Your task to perform on an android device: Open Google Chrome and click the shortcut for Amazon.com Image 0: 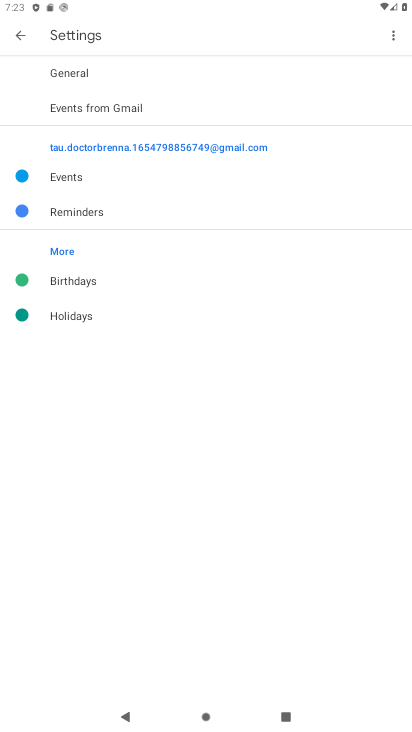
Step 0: press home button
Your task to perform on an android device: Open Google Chrome and click the shortcut for Amazon.com Image 1: 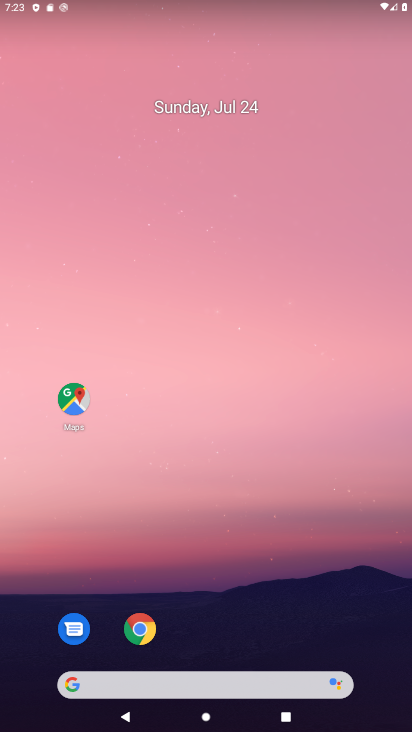
Step 1: drag from (365, 631) to (393, 102)
Your task to perform on an android device: Open Google Chrome and click the shortcut for Amazon.com Image 2: 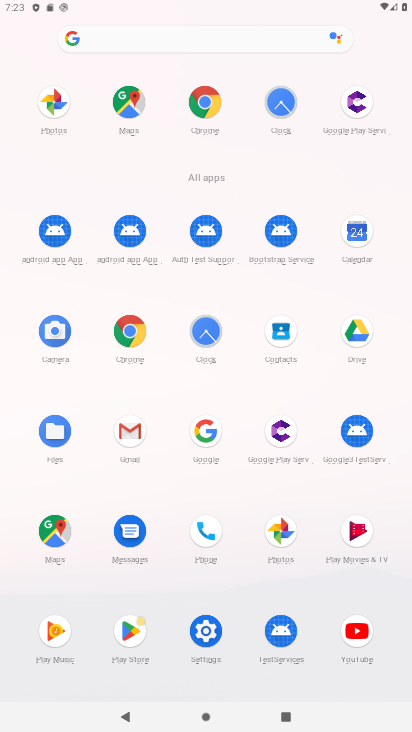
Step 2: click (199, 103)
Your task to perform on an android device: Open Google Chrome and click the shortcut for Amazon.com Image 3: 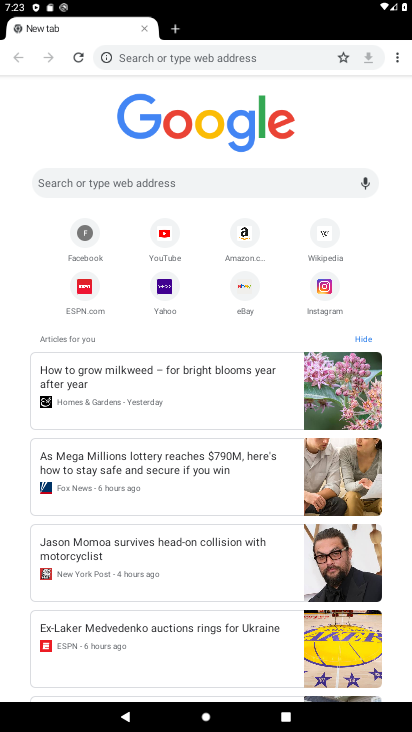
Step 3: click (245, 240)
Your task to perform on an android device: Open Google Chrome and click the shortcut for Amazon.com Image 4: 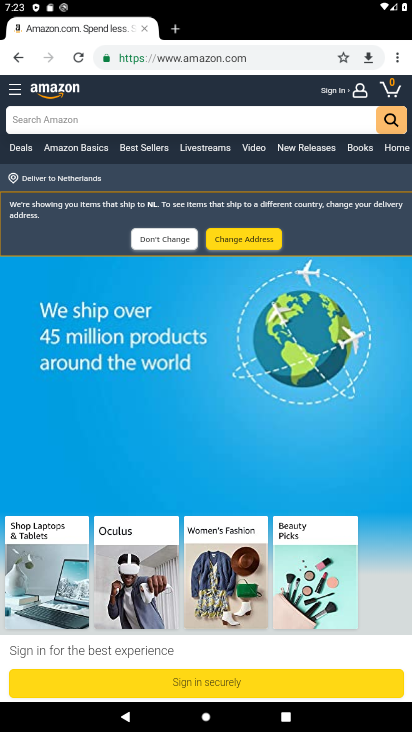
Step 4: task complete